Your task to perform on an android device: find which apps use the phone's location Image 0: 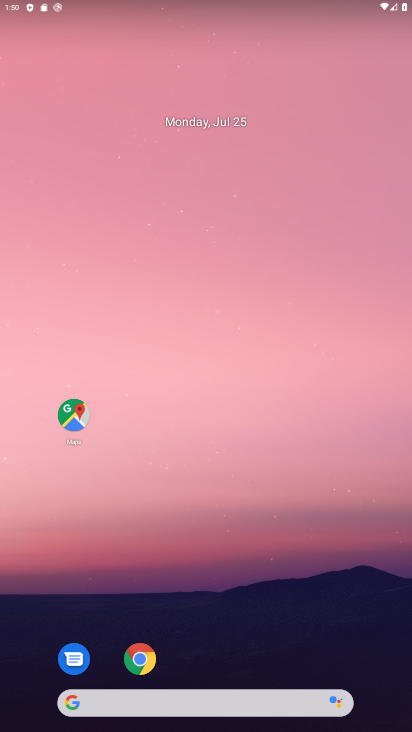
Step 0: drag from (216, 618) to (220, 177)
Your task to perform on an android device: find which apps use the phone's location Image 1: 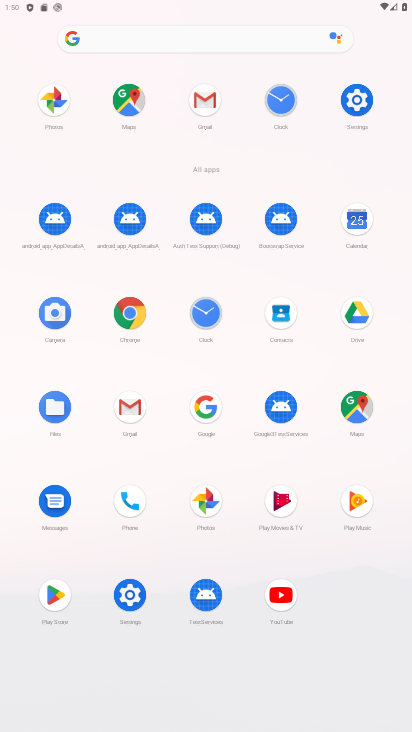
Step 1: click (134, 603)
Your task to perform on an android device: find which apps use the phone's location Image 2: 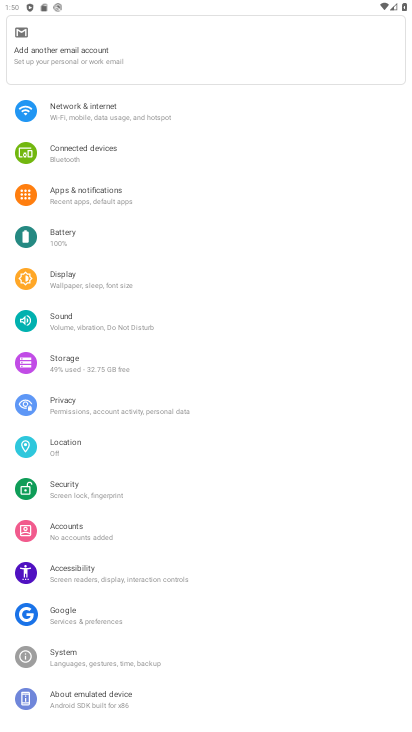
Step 2: click (73, 453)
Your task to perform on an android device: find which apps use the phone's location Image 3: 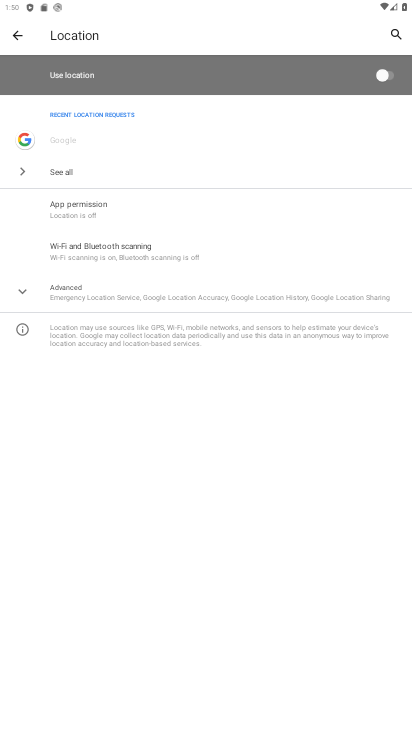
Step 3: click (94, 208)
Your task to perform on an android device: find which apps use the phone's location Image 4: 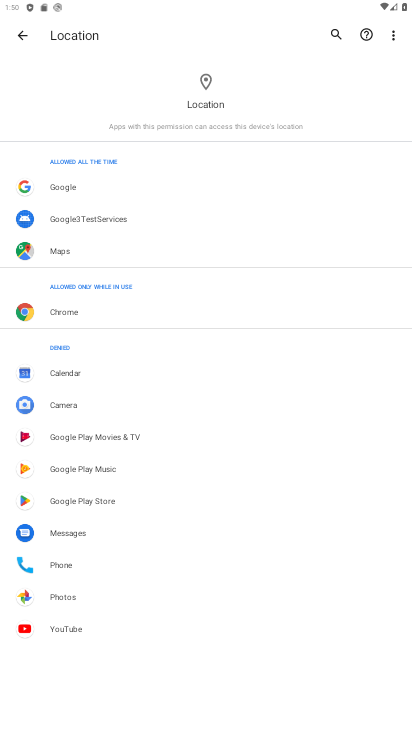
Step 4: task complete